Your task to perform on an android device: Search for vegetarian restaurants on Maps Image 0: 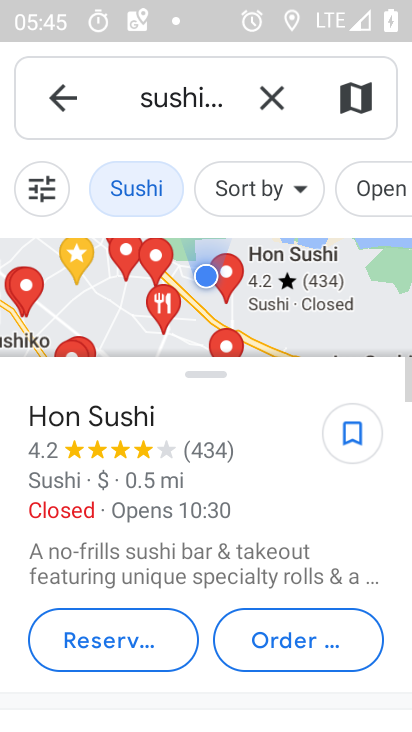
Step 0: press home button
Your task to perform on an android device: Search for vegetarian restaurants on Maps Image 1: 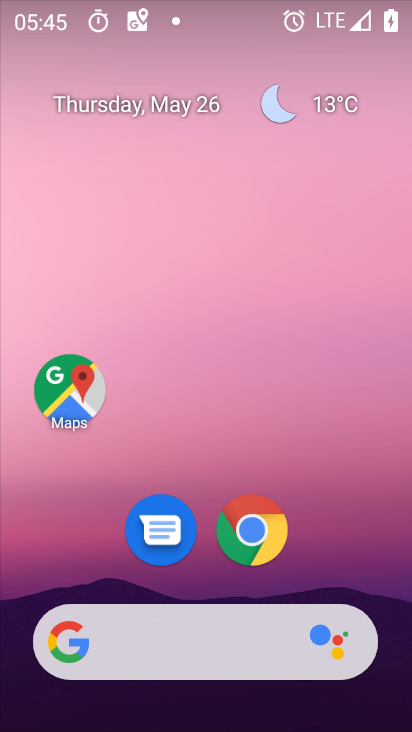
Step 1: drag from (271, 670) to (323, 84)
Your task to perform on an android device: Search for vegetarian restaurants on Maps Image 2: 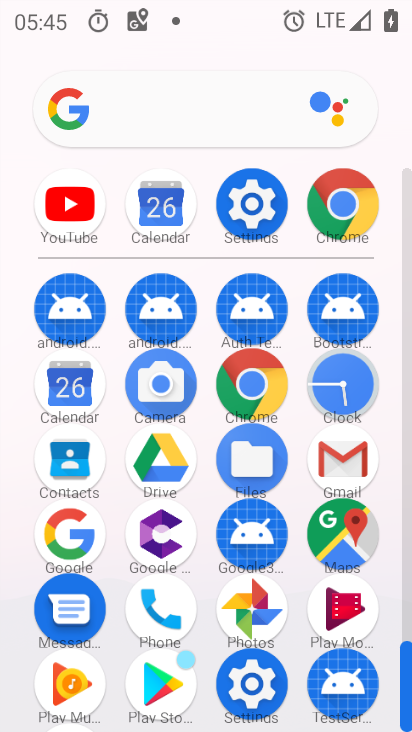
Step 2: click (359, 536)
Your task to perform on an android device: Search for vegetarian restaurants on Maps Image 3: 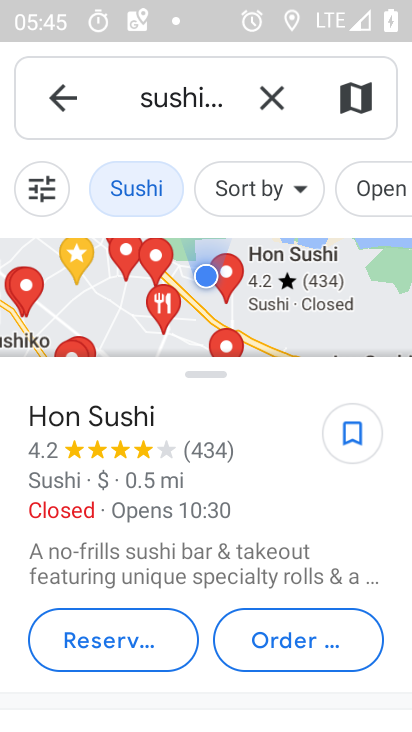
Step 3: press back button
Your task to perform on an android device: Search for vegetarian restaurants on Maps Image 4: 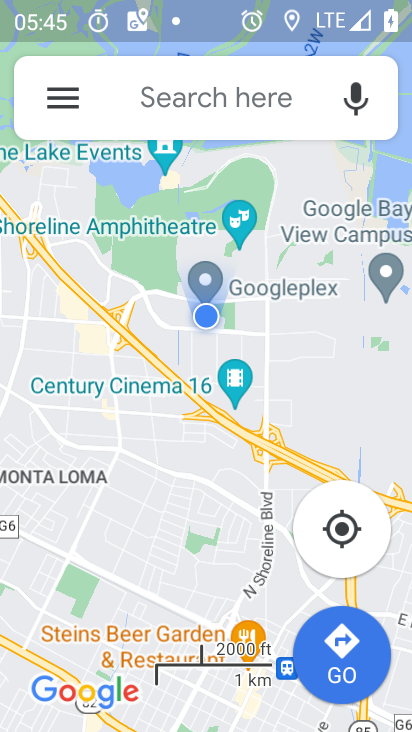
Step 4: click (64, 97)
Your task to perform on an android device: Search for vegetarian restaurants on Maps Image 5: 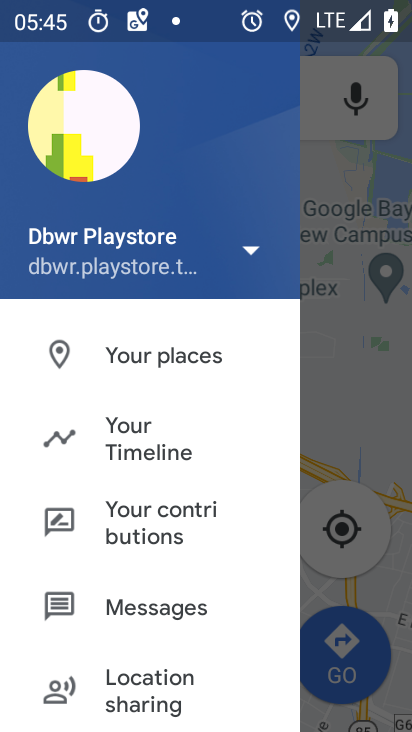
Step 5: click (361, 300)
Your task to perform on an android device: Search for vegetarian restaurants on Maps Image 6: 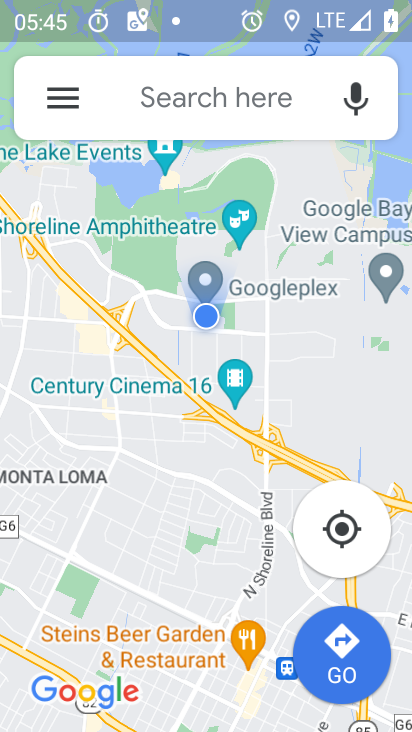
Step 6: click (178, 109)
Your task to perform on an android device: Search for vegetarian restaurants on Maps Image 7: 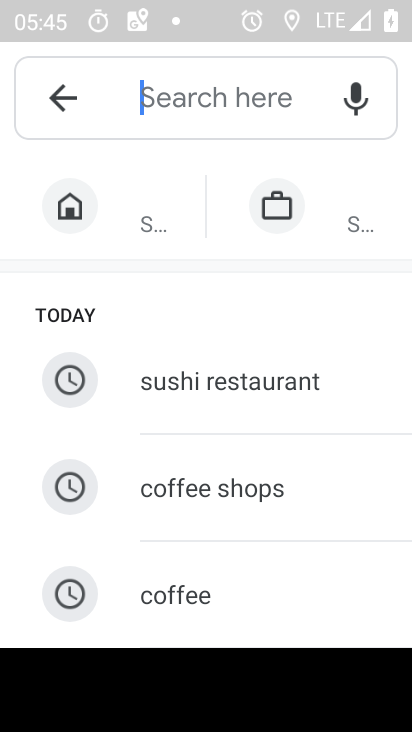
Step 7: type "vegetarian restaurant"
Your task to perform on an android device: Search for vegetarian restaurants on Maps Image 8: 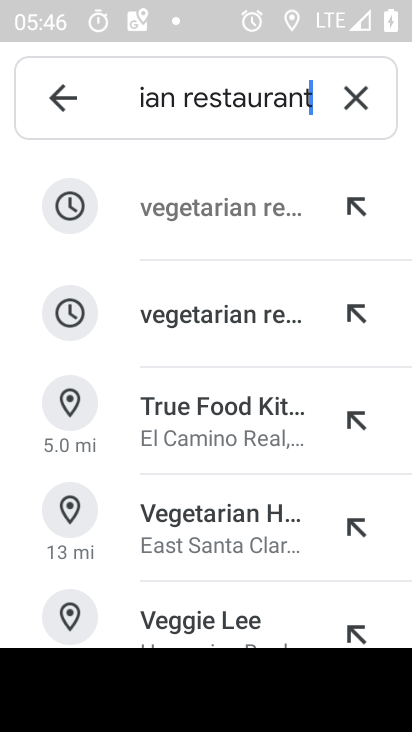
Step 8: click (162, 344)
Your task to perform on an android device: Search for vegetarian restaurants on Maps Image 9: 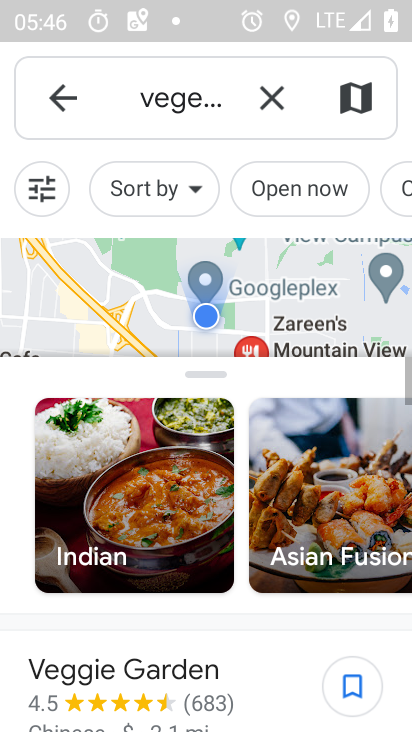
Step 9: task complete